Your task to perform on an android device: Open Maps and search for coffee Image 0: 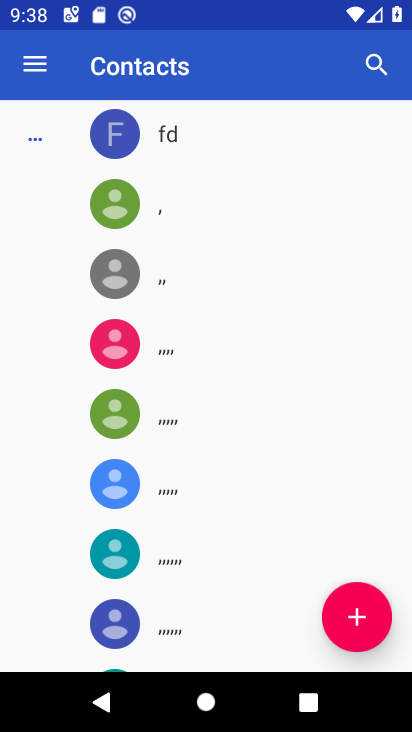
Step 0: press home button
Your task to perform on an android device: Open Maps and search for coffee Image 1: 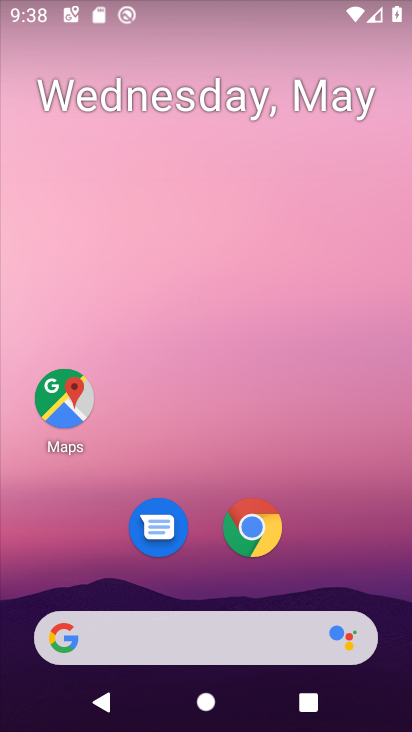
Step 1: click (54, 387)
Your task to perform on an android device: Open Maps and search for coffee Image 2: 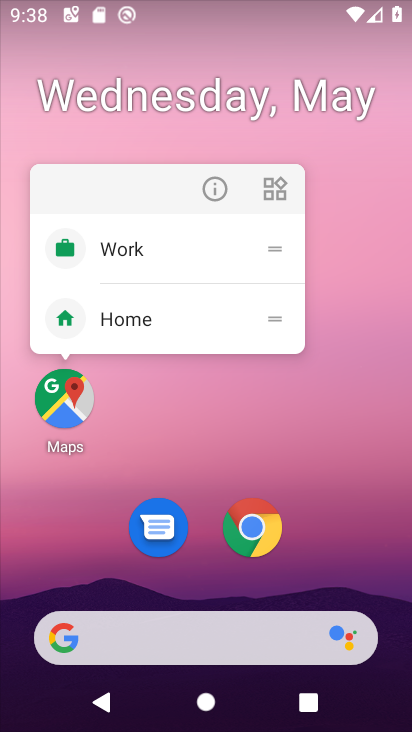
Step 2: click (65, 414)
Your task to perform on an android device: Open Maps and search for coffee Image 3: 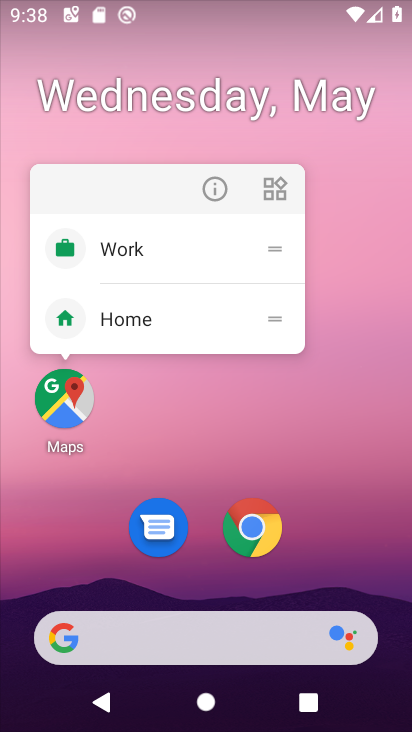
Step 3: click (67, 408)
Your task to perform on an android device: Open Maps and search for coffee Image 4: 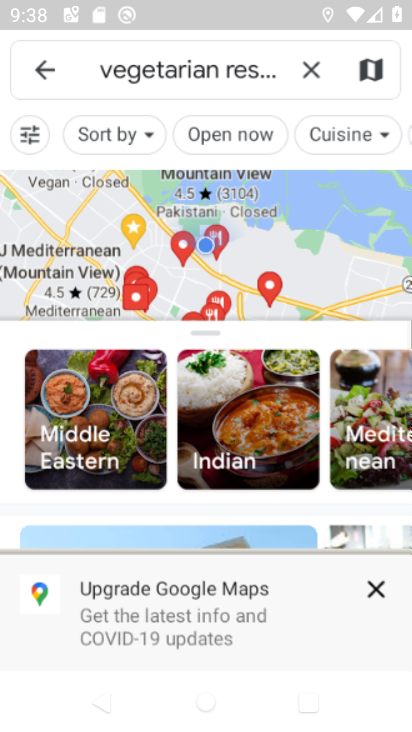
Step 4: click (307, 69)
Your task to perform on an android device: Open Maps and search for coffee Image 5: 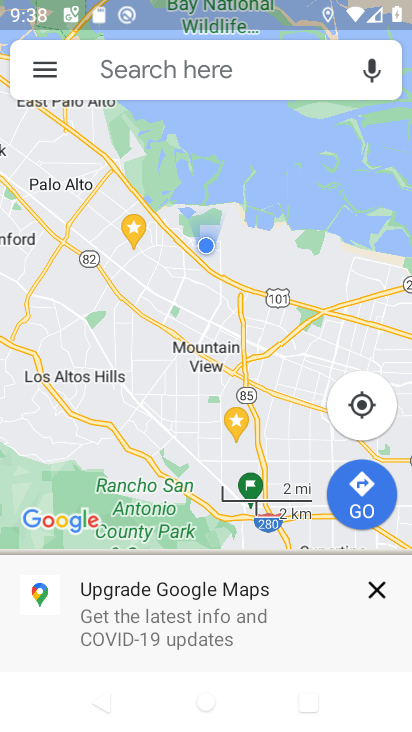
Step 5: click (201, 66)
Your task to perform on an android device: Open Maps and search for coffee Image 6: 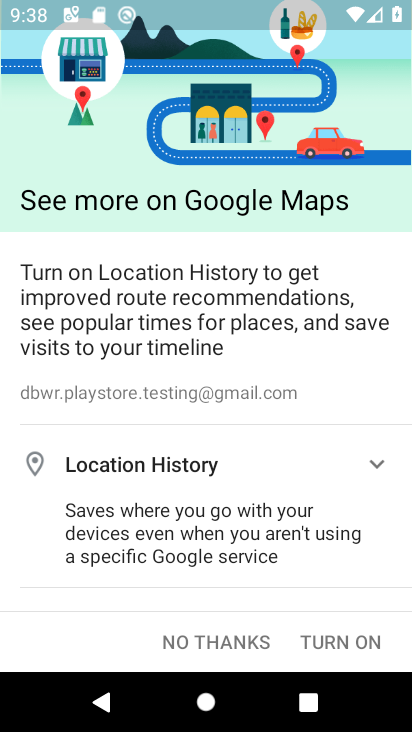
Step 6: click (212, 640)
Your task to perform on an android device: Open Maps and search for coffee Image 7: 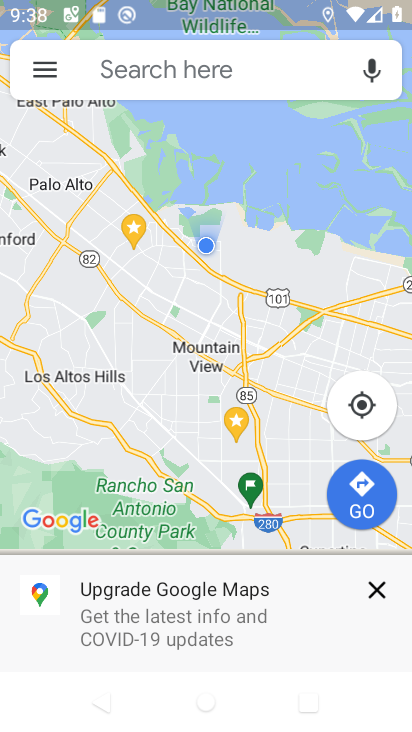
Step 7: click (208, 51)
Your task to perform on an android device: Open Maps and search for coffee Image 8: 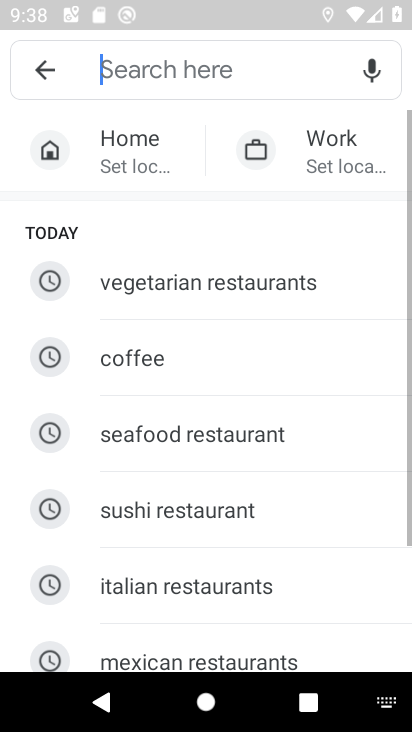
Step 8: click (133, 347)
Your task to perform on an android device: Open Maps and search for coffee Image 9: 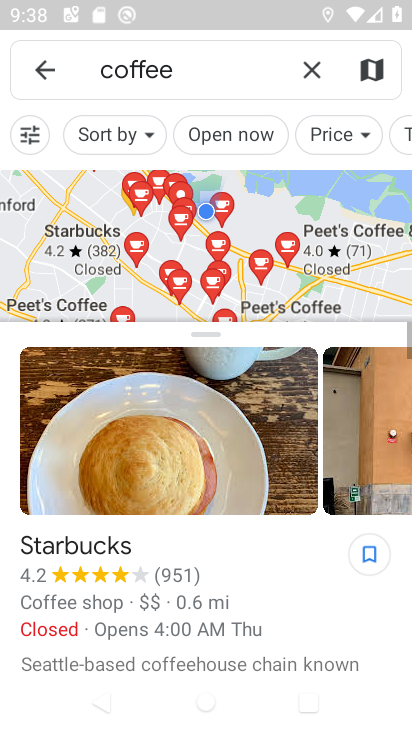
Step 9: task complete